Your task to perform on an android device: Search for seafood restaurants on Google Maps Image 0: 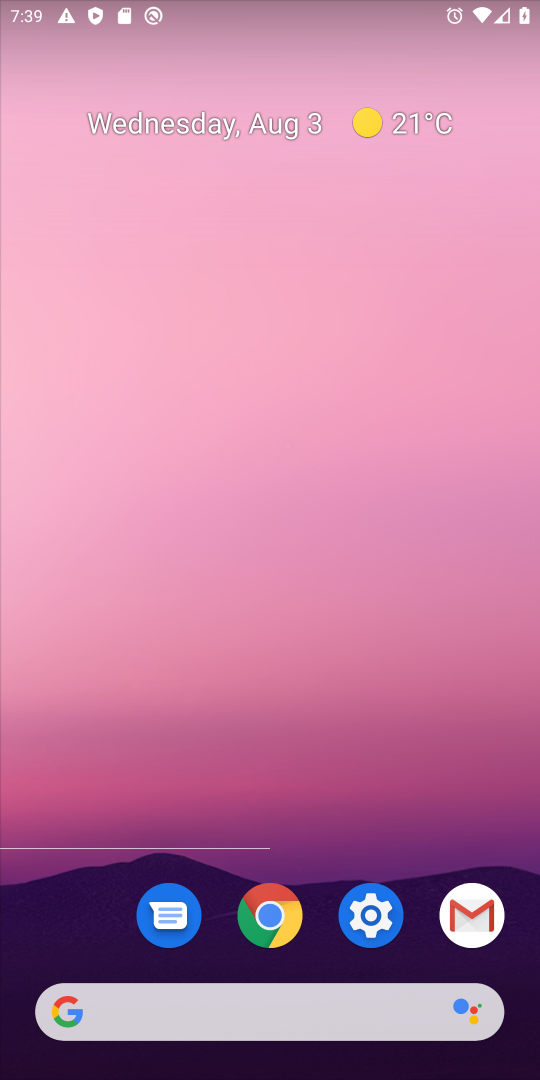
Step 0: press home button
Your task to perform on an android device: Search for seafood restaurants on Google Maps Image 1: 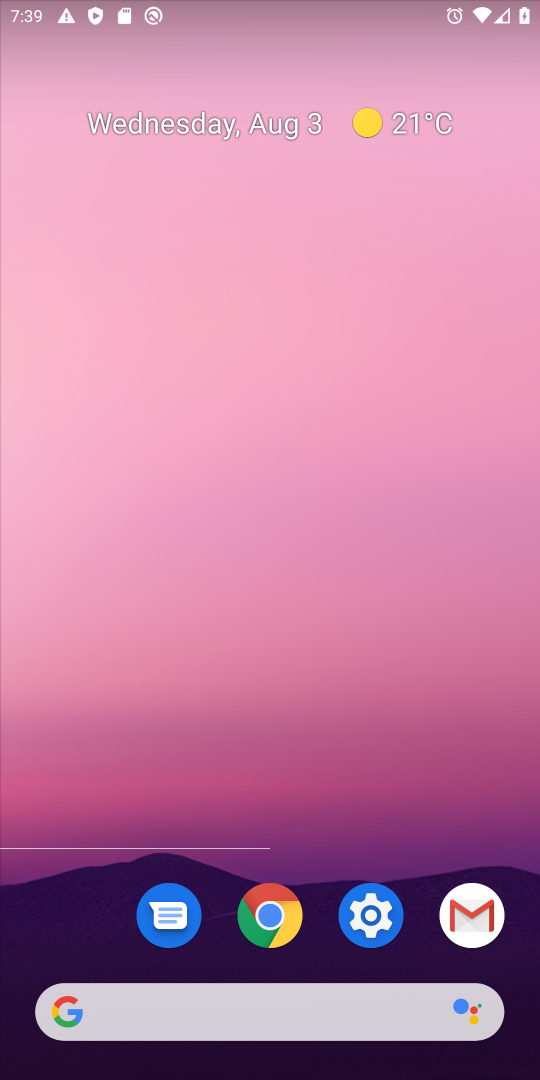
Step 1: drag from (248, 1058) to (232, 320)
Your task to perform on an android device: Search for seafood restaurants on Google Maps Image 2: 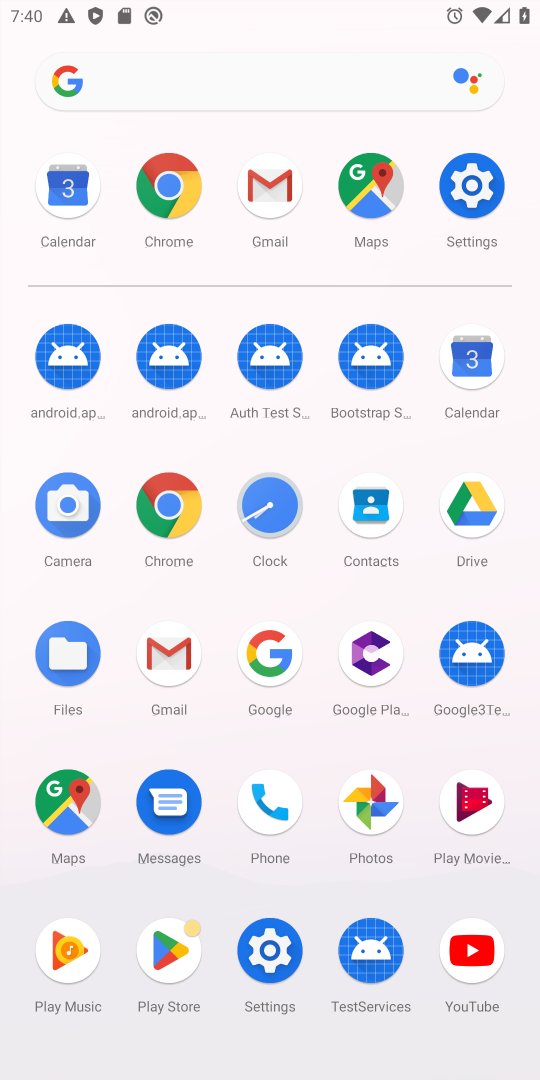
Step 2: click (360, 201)
Your task to perform on an android device: Search for seafood restaurants on Google Maps Image 3: 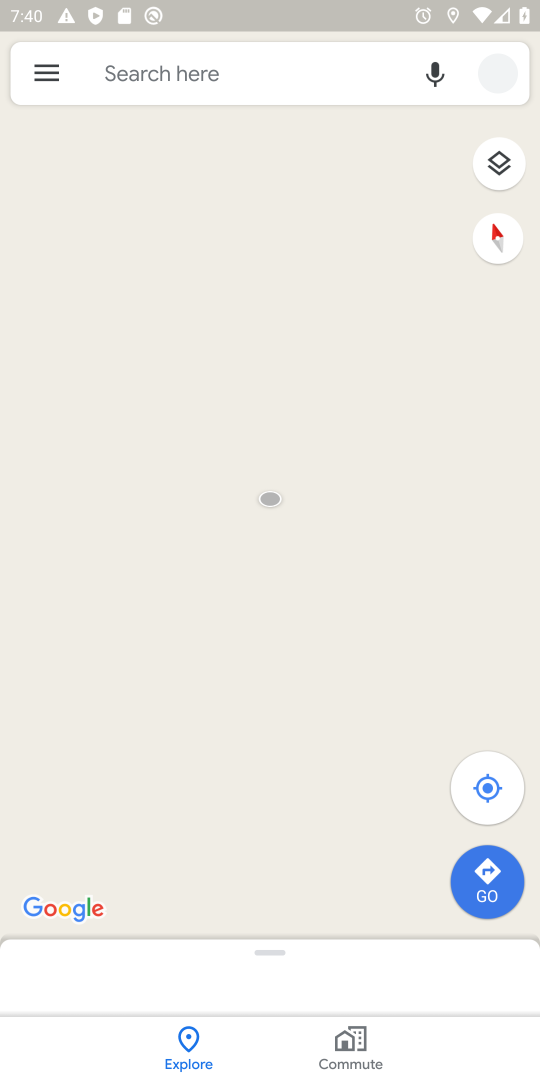
Step 3: click (147, 54)
Your task to perform on an android device: Search for seafood restaurants on Google Maps Image 4: 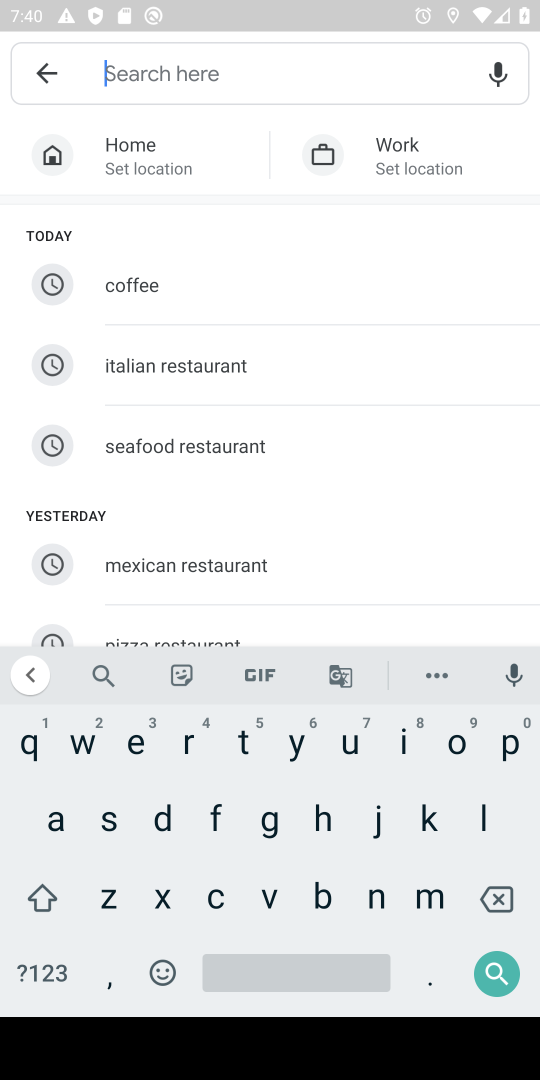
Step 4: click (237, 451)
Your task to perform on an android device: Search for seafood restaurants on Google Maps Image 5: 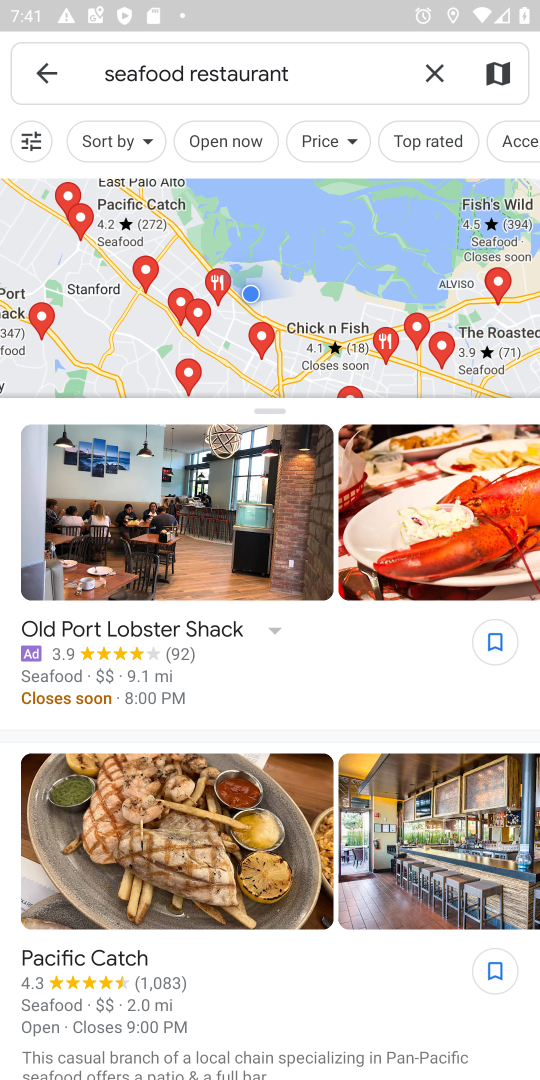
Step 5: task complete